Your task to perform on an android device: turn off notifications in google photos Image 0: 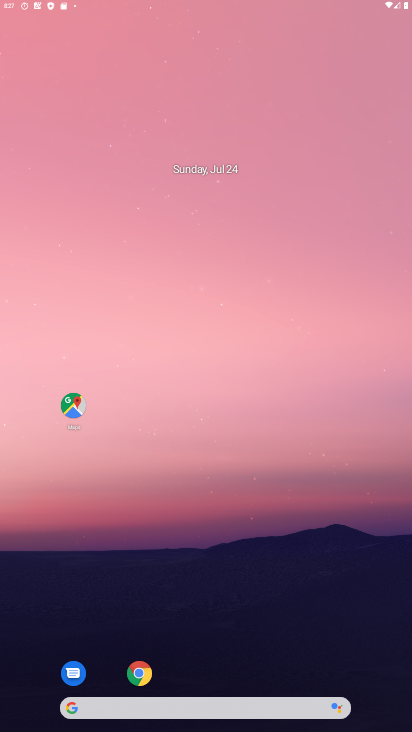
Step 0: drag from (97, 19) to (35, 564)
Your task to perform on an android device: turn off notifications in google photos Image 1: 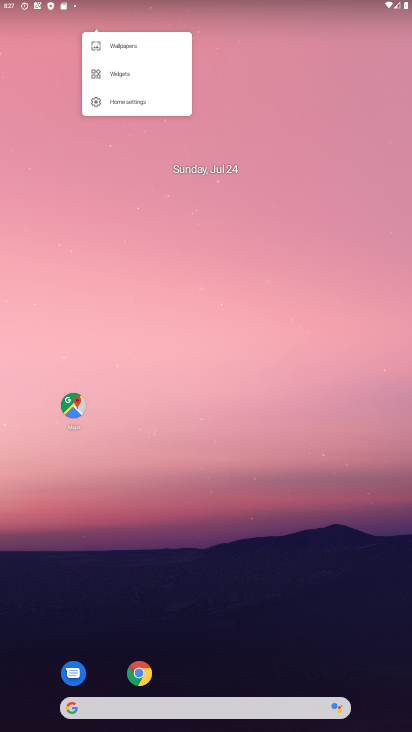
Step 1: drag from (198, 694) to (222, 451)
Your task to perform on an android device: turn off notifications in google photos Image 2: 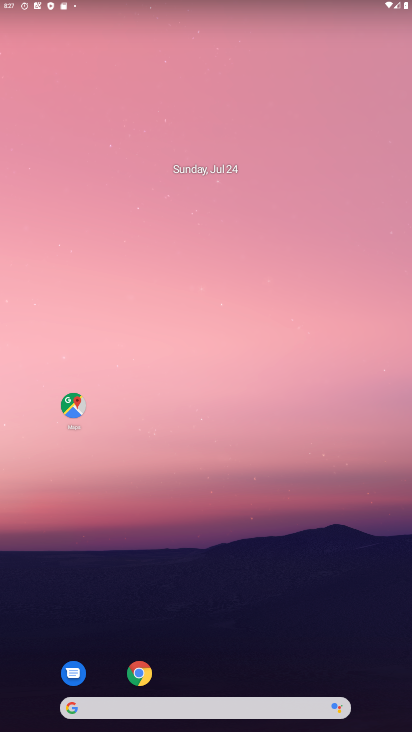
Step 2: drag from (182, 691) to (232, 220)
Your task to perform on an android device: turn off notifications in google photos Image 3: 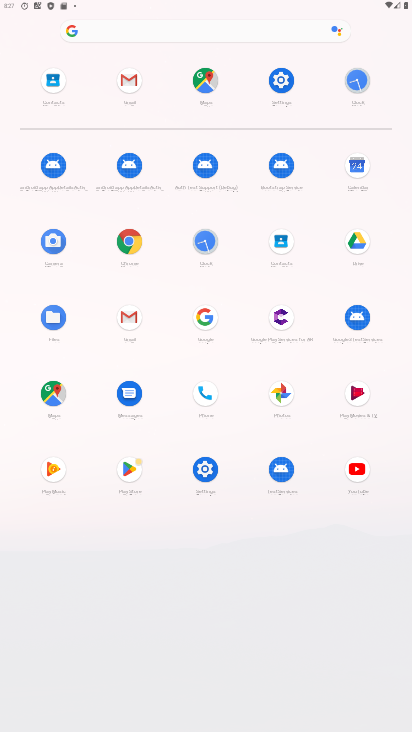
Step 3: drag from (259, 532) to (258, 329)
Your task to perform on an android device: turn off notifications in google photos Image 4: 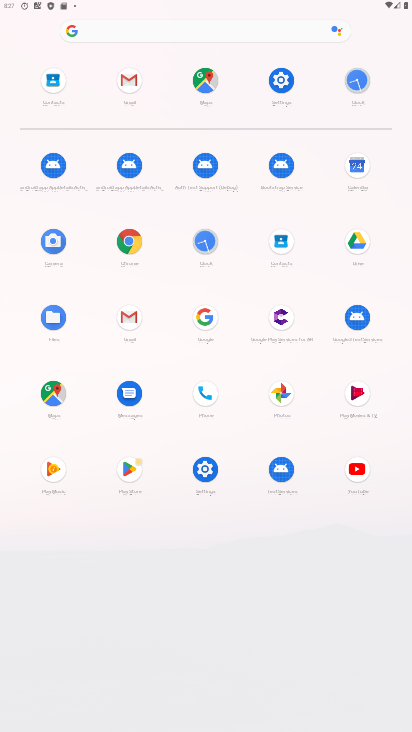
Step 4: drag from (238, 600) to (254, 408)
Your task to perform on an android device: turn off notifications in google photos Image 5: 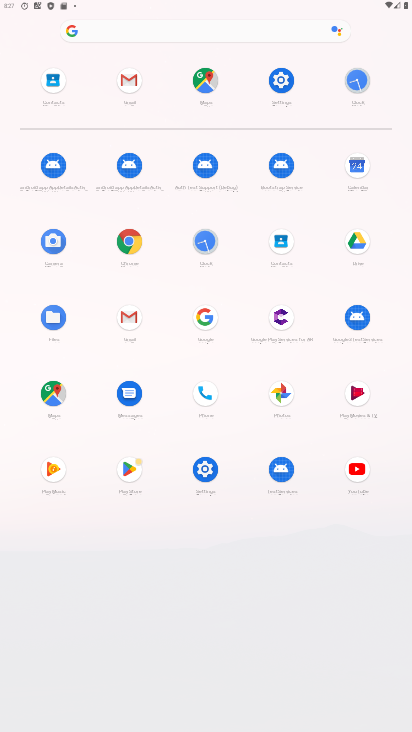
Step 5: click (279, 395)
Your task to perform on an android device: turn off notifications in google photos Image 6: 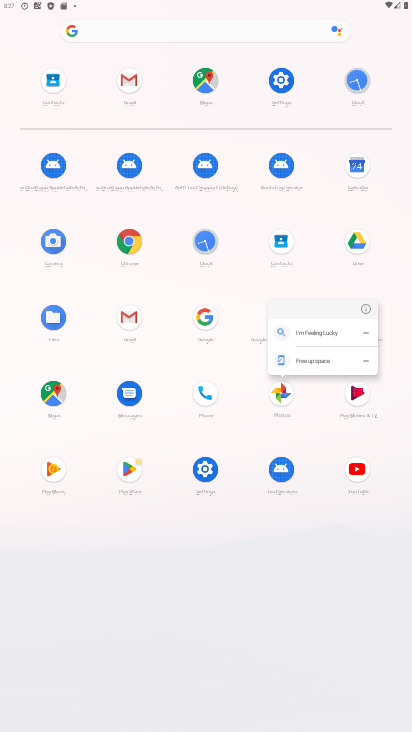
Step 6: click (366, 313)
Your task to perform on an android device: turn off notifications in google photos Image 7: 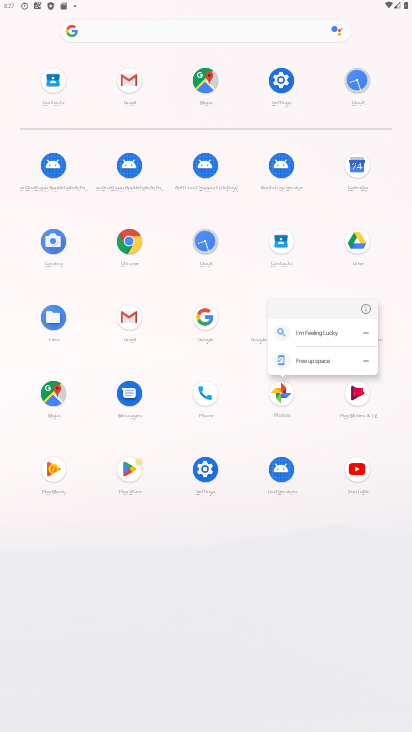
Step 7: click (366, 313)
Your task to perform on an android device: turn off notifications in google photos Image 8: 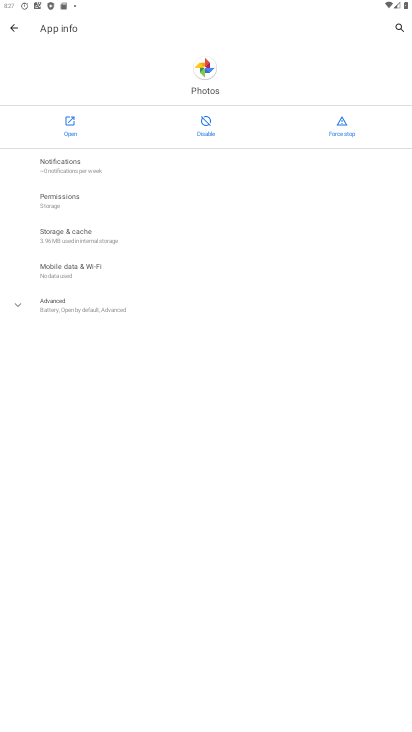
Step 8: click (69, 136)
Your task to perform on an android device: turn off notifications in google photos Image 9: 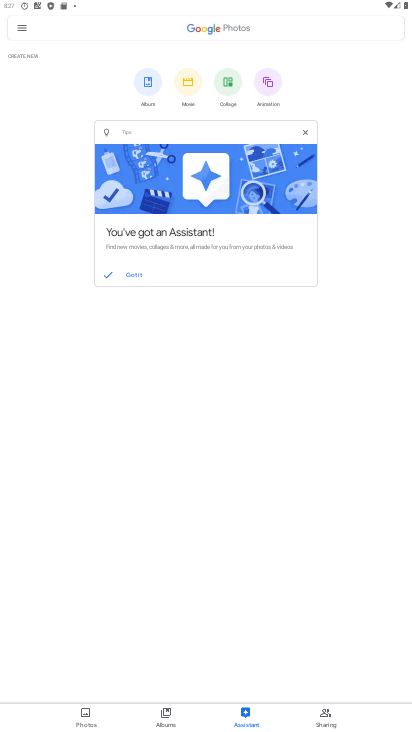
Step 9: click (21, 29)
Your task to perform on an android device: turn off notifications in google photos Image 10: 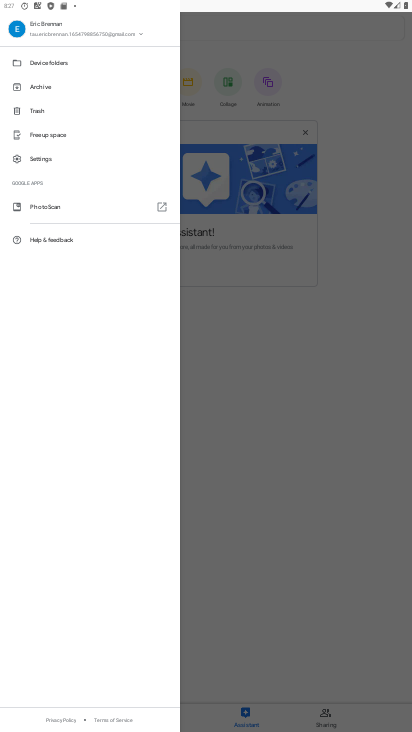
Step 10: click (50, 161)
Your task to perform on an android device: turn off notifications in google photos Image 11: 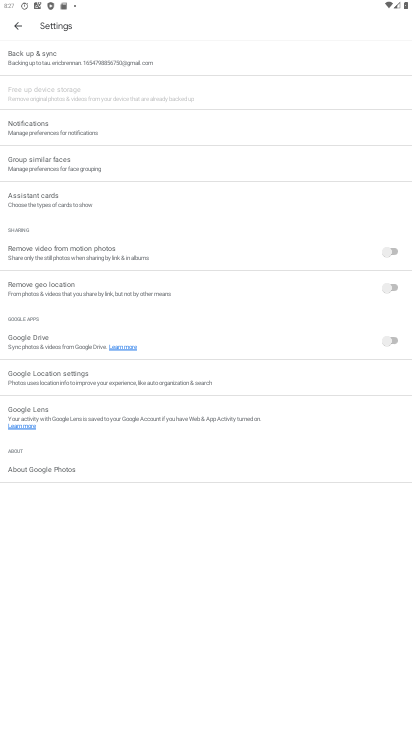
Step 11: click (67, 133)
Your task to perform on an android device: turn off notifications in google photos Image 12: 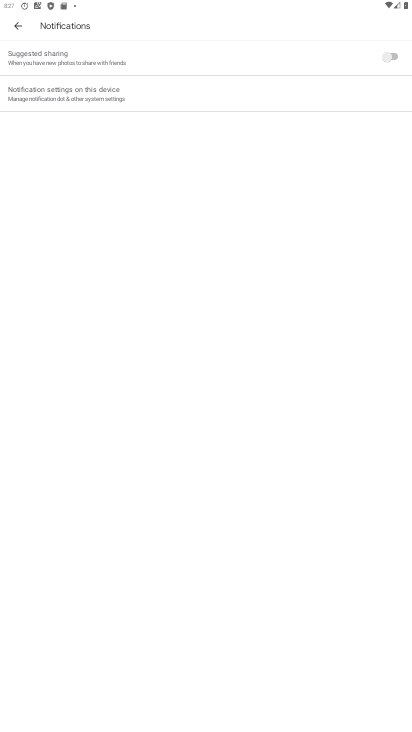
Step 12: click (109, 105)
Your task to perform on an android device: turn off notifications in google photos Image 13: 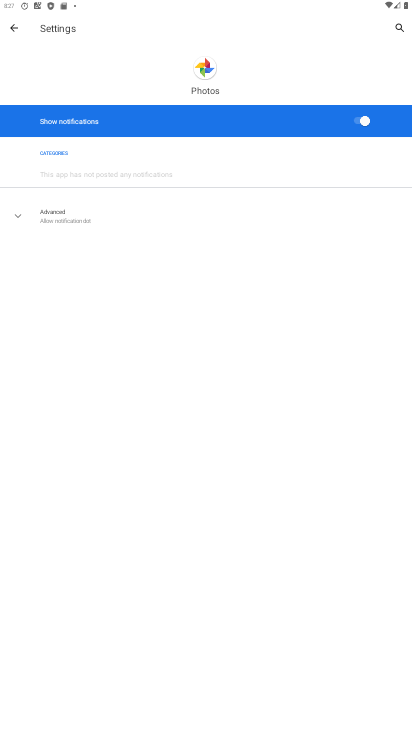
Step 13: click (369, 120)
Your task to perform on an android device: turn off notifications in google photos Image 14: 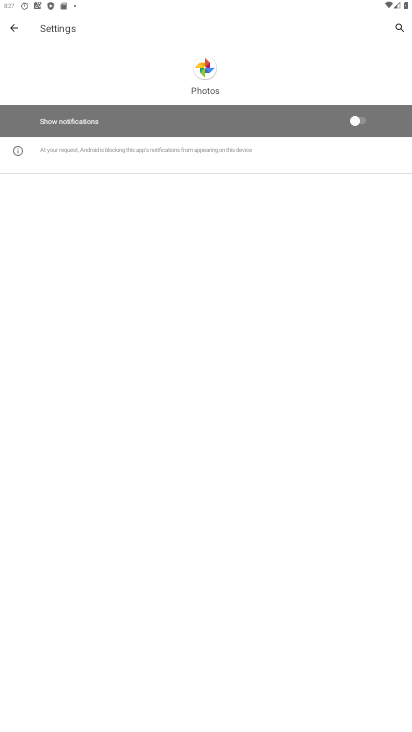
Step 14: task complete